Your task to perform on an android device: Open maps Image 0: 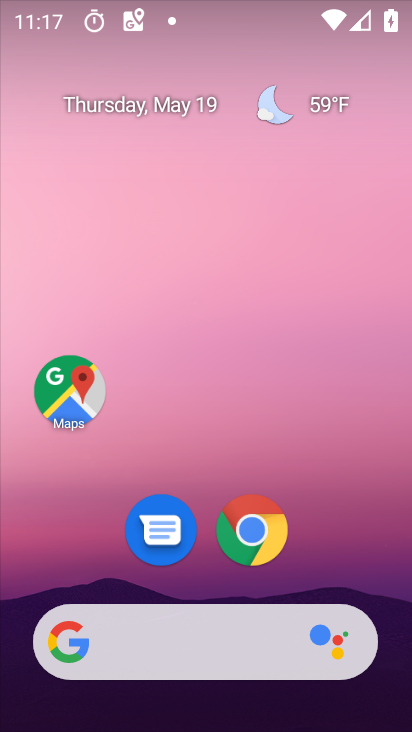
Step 0: drag from (366, 538) to (366, 228)
Your task to perform on an android device: Open maps Image 1: 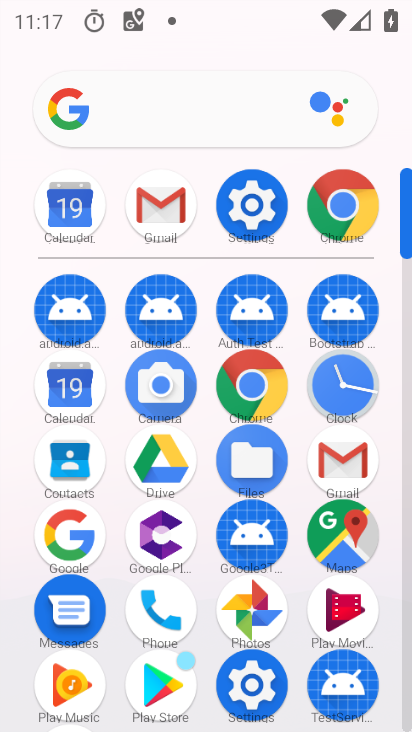
Step 1: click (334, 528)
Your task to perform on an android device: Open maps Image 2: 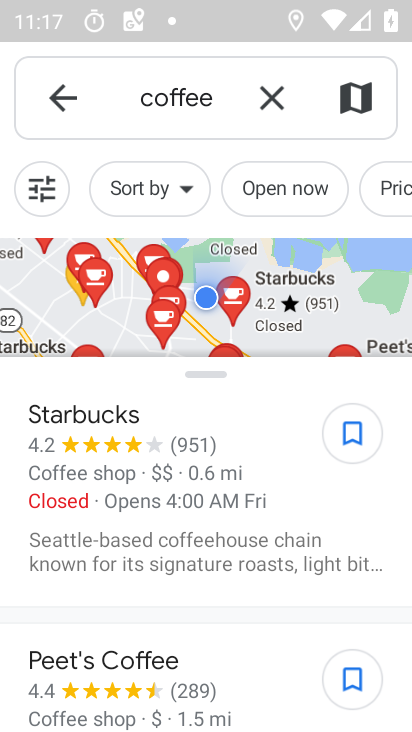
Step 2: click (67, 101)
Your task to perform on an android device: Open maps Image 3: 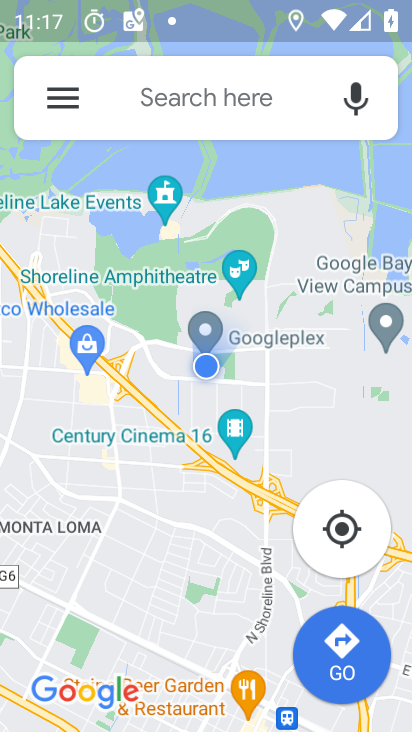
Step 3: task complete